Your task to perform on an android device: Check the news Image 0: 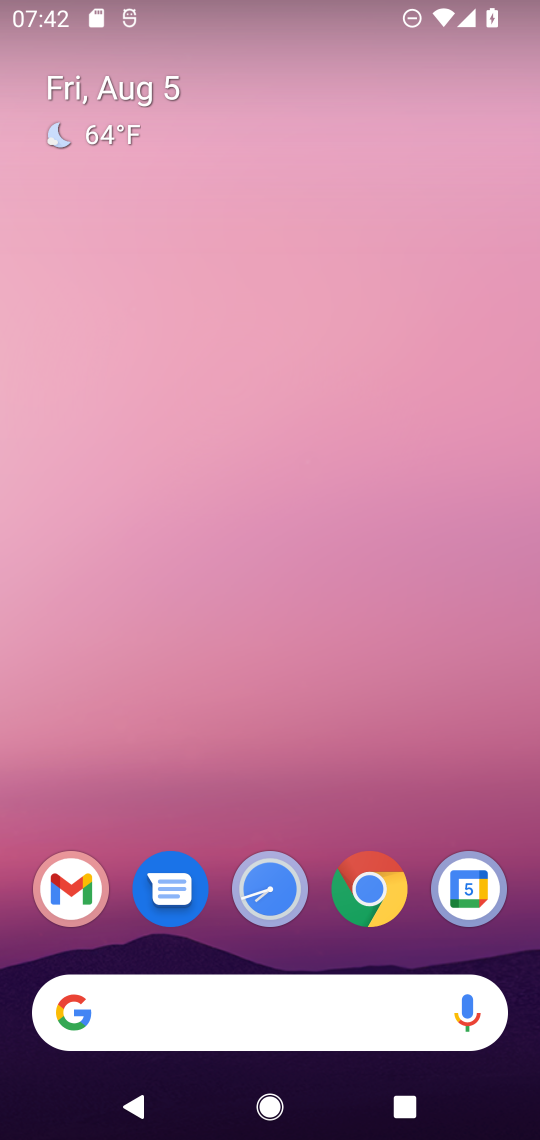
Step 0: drag from (266, 750) to (288, 402)
Your task to perform on an android device: Check the news Image 1: 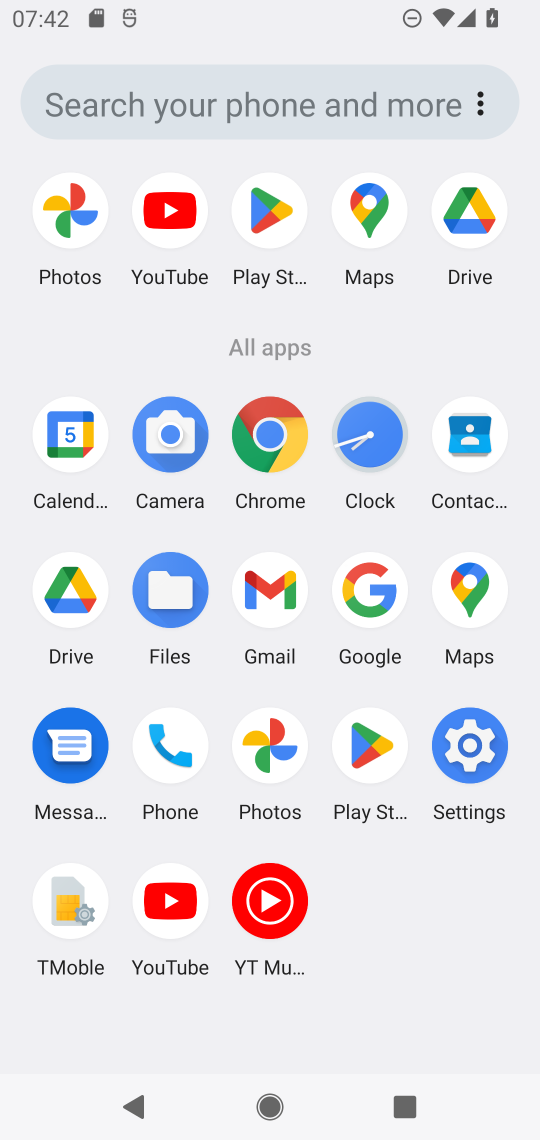
Step 1: click (366, 596)
Your task to perform on an android device: Check the news Image 2: 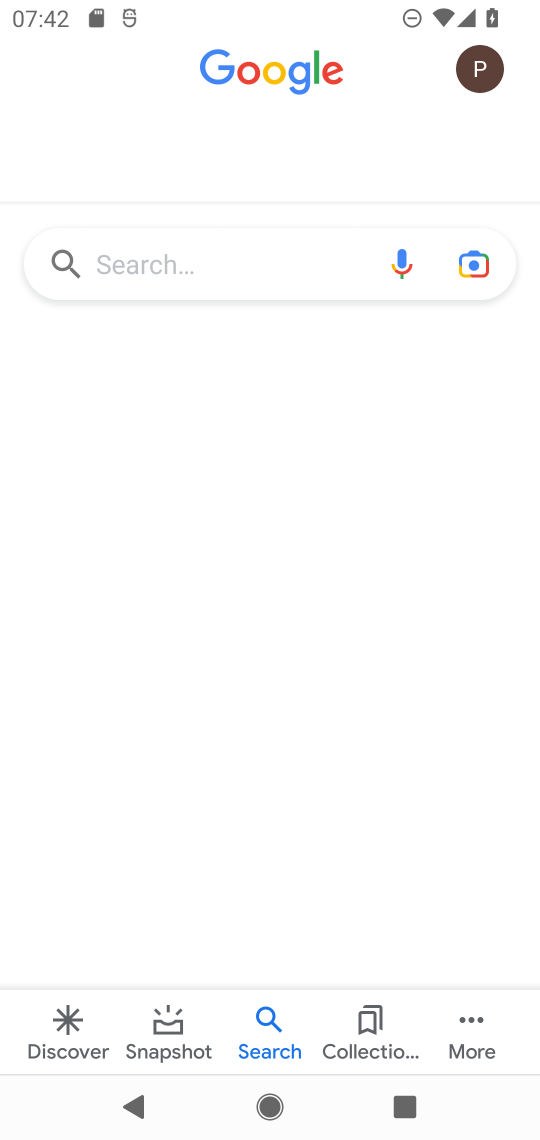
Step 2: click (176, 263)
Your task to perform on an android device: Check the news Image 3: 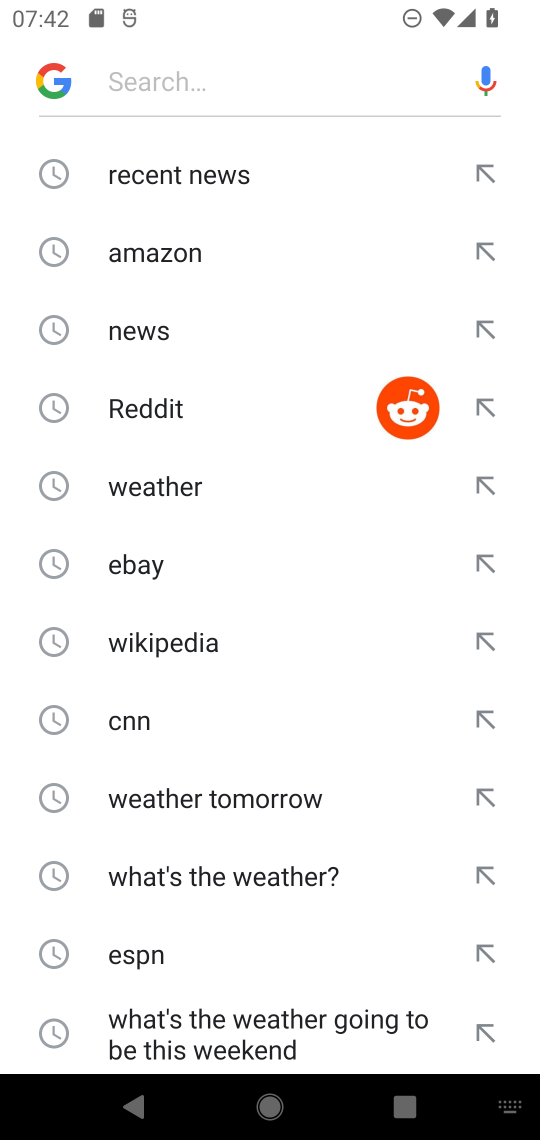
Step 3: click (131, 343)
Your task to perform on an android device: Check the news Image 4: 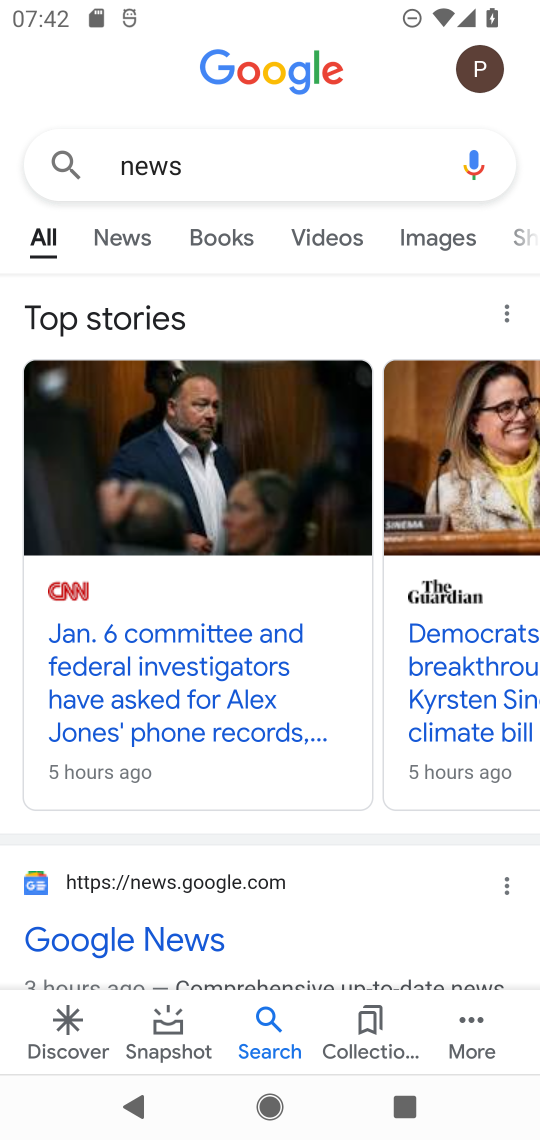
Step 4: task complete